Your task to perform on an android device: What's on my calendar today? Image 0: 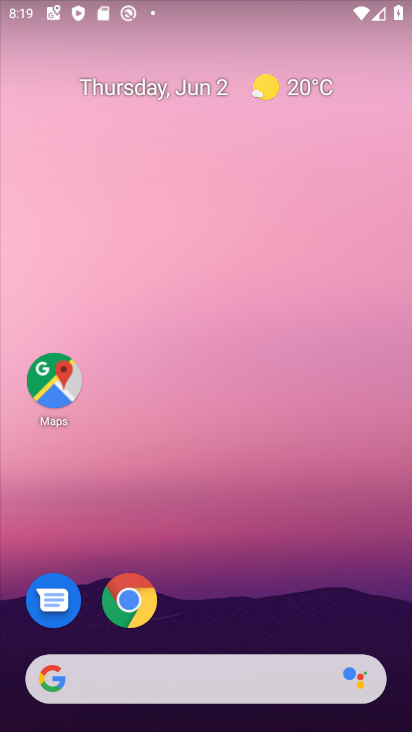
Step 0: drag from (370, 628) to (370, 204)
Your task to perform on an android device: What's on my calendar today? Image 1: 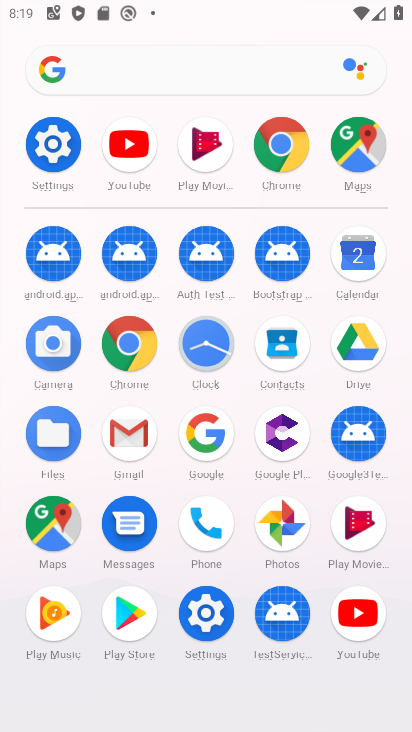
Step 1: click (356, 270)
Your task to perform on an android device: What's on my calendar today? Image 2: 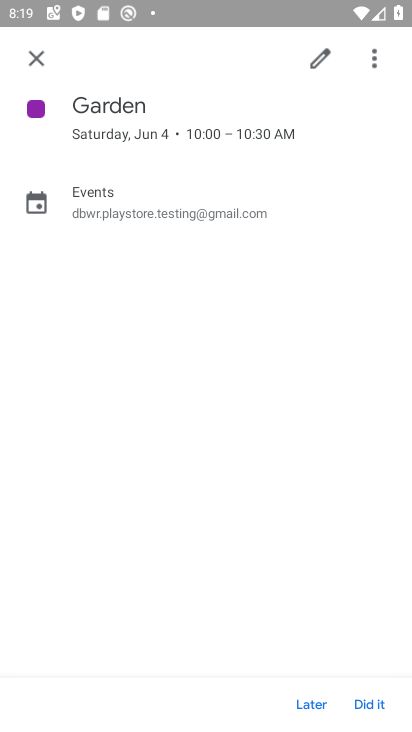
Step 2: click (33, 61)
Your task to perform on an android device: What's on my calendar today? Image 3: 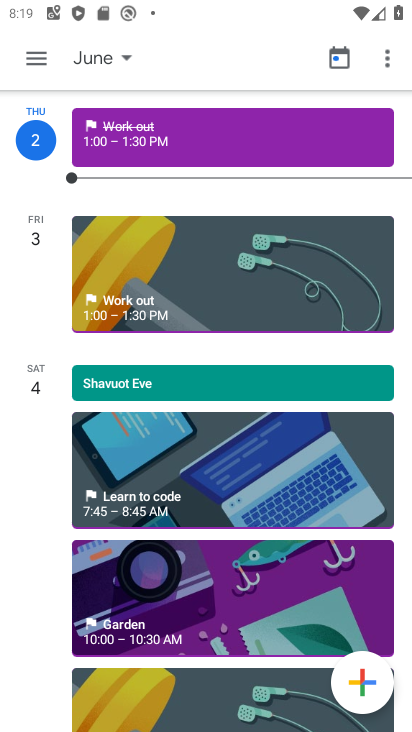
Step 3: click (199, 288)
Your task to perform on an android device: What's on my calendar today? Image 4: 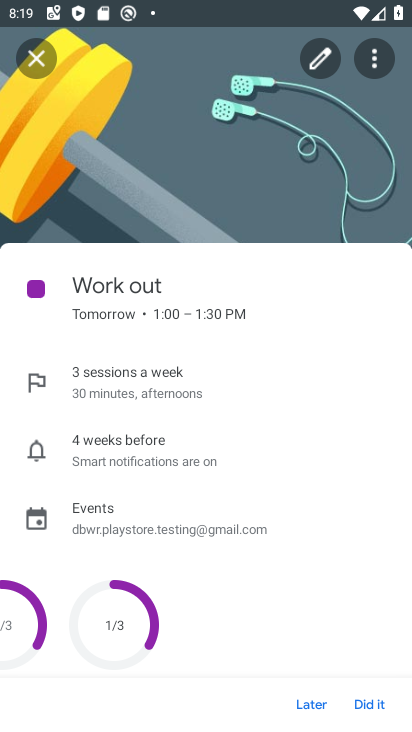
Step 4: task complete